Your task to perform on an android device: Open the stopwatch Image 0: 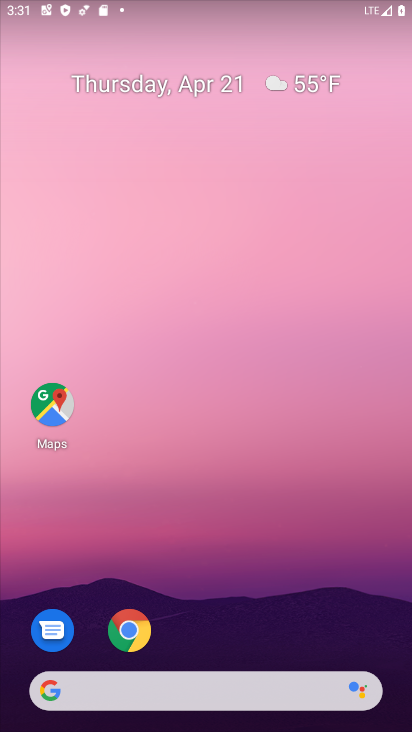
Step 0: drag from (216, 500) to (270, 37)
Your task to perform on an android device: Open the stopwatch Image 1: 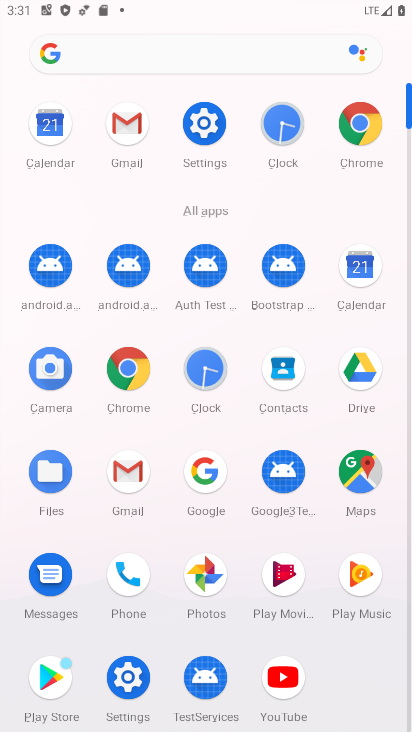
Step 1: click (213, 364)
Your task to perform on an android device: Open the stopwatch Image 2: 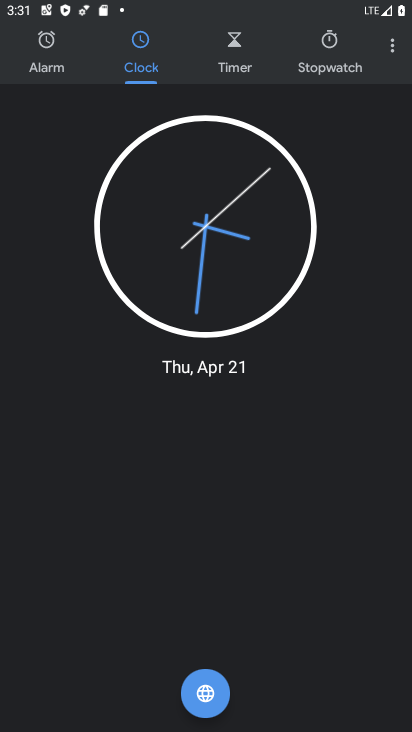
Step 2: click (333, 66)
Your task to perform on an android device: Open the stopwatch Image 3: 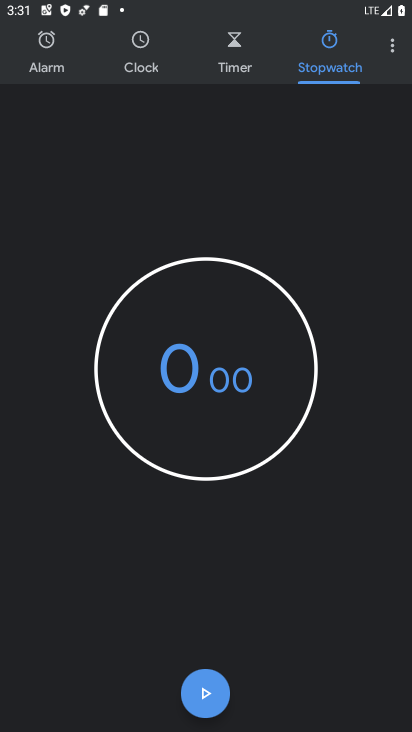
Step 3: task complete